Your task to perform on an android device: open app "Google Keep" Image 0: 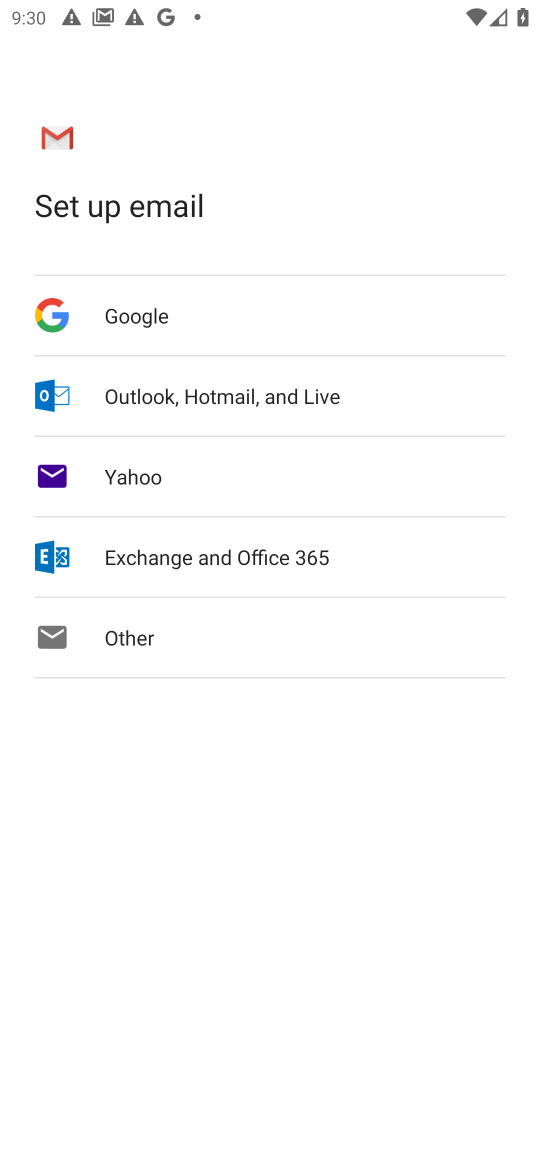
Step 0: press home button
Your task to perform on an android device: open app "Google Keep" Image 1: 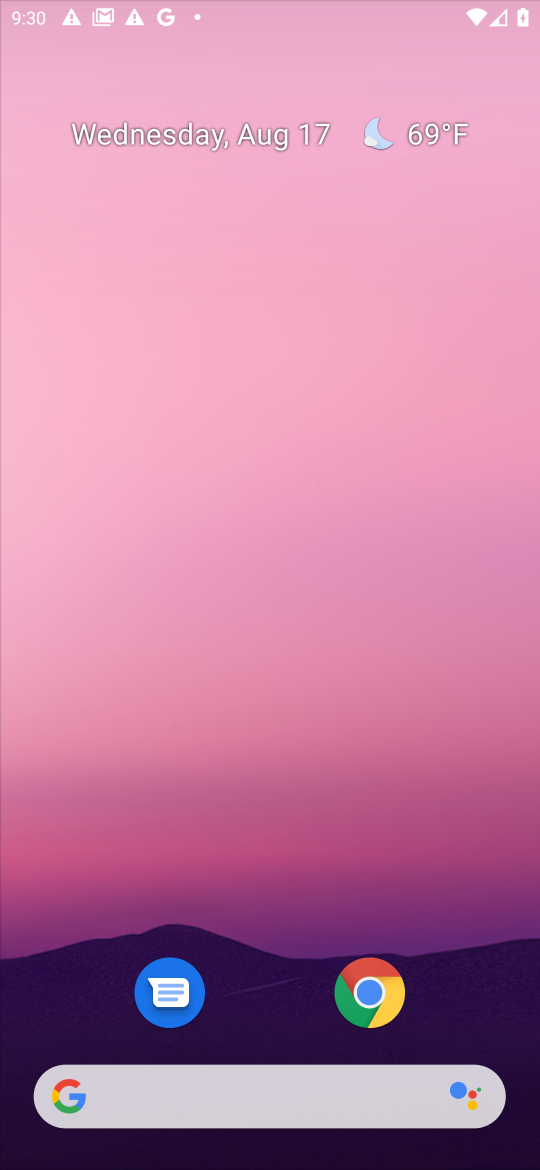
Step 1: task complete